Your task to perform on an android device: move an email to a new category in the gmail app Image 0: 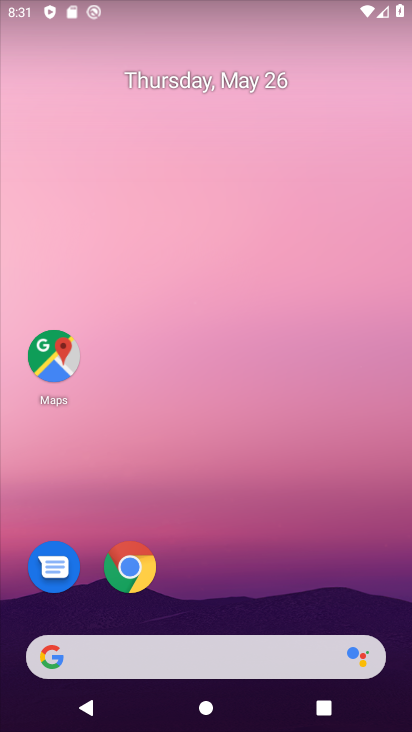
Step 0: drag from (229, 617) to (301, 195)
Your task to perform on an android device: move an email to a new category in the gmail app Image 1: 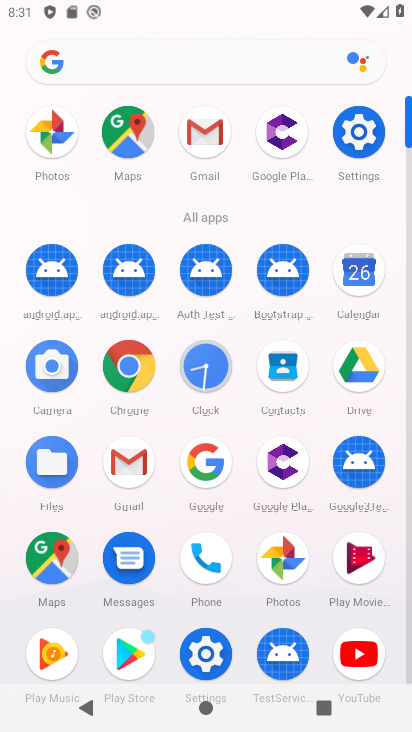
Step 1: click (210, 127)
Your task to perform on an android device: move an email to a new category in the gmail app Image 2: 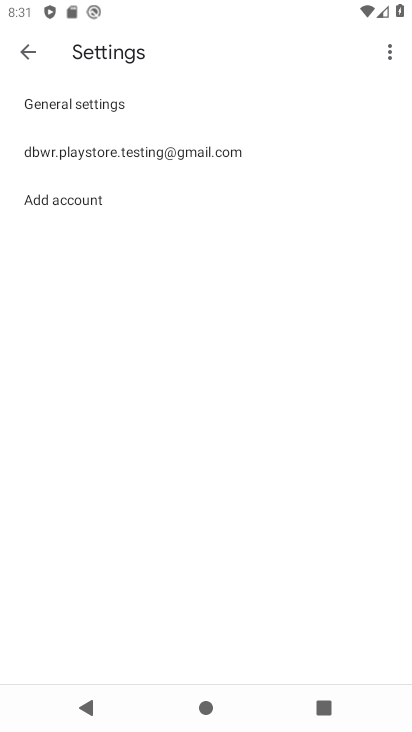
Step 2: click (29, 57)
Your task to perform on an android device: move an email to a new category in the gmail app Image 3: 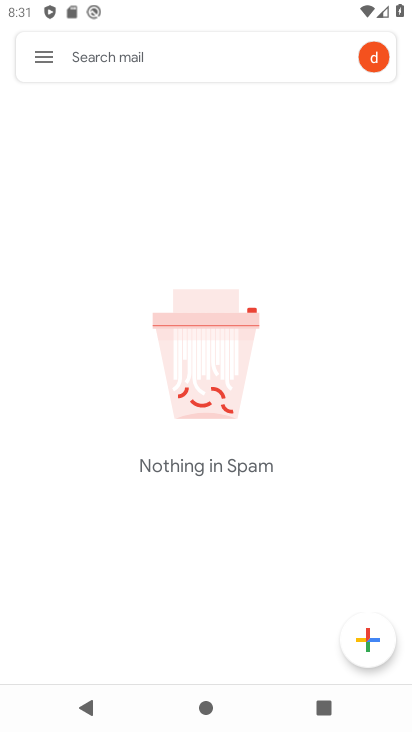
Step 3: click (34, 55)
Your task to perform on an android device: move an email to a new category in the gmail app Image 4: 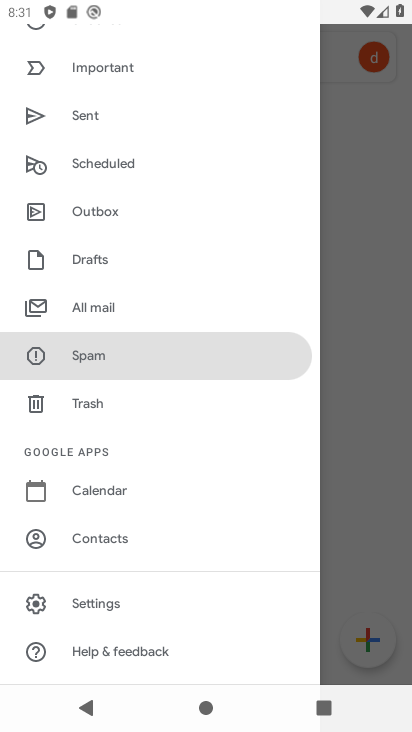
Step 4: click (94, 304)
Your task to perform on an android device: move an email to a new category in the gmail app Image 5: 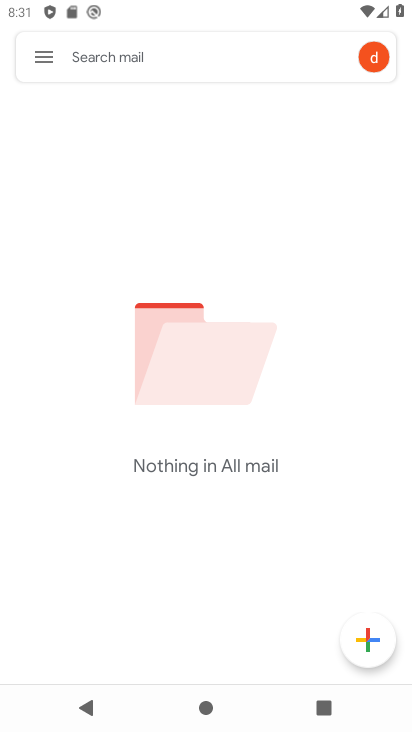
Step 5: task complete